Your task to perform on an android device: What's the news in Myanmar? Image 0: 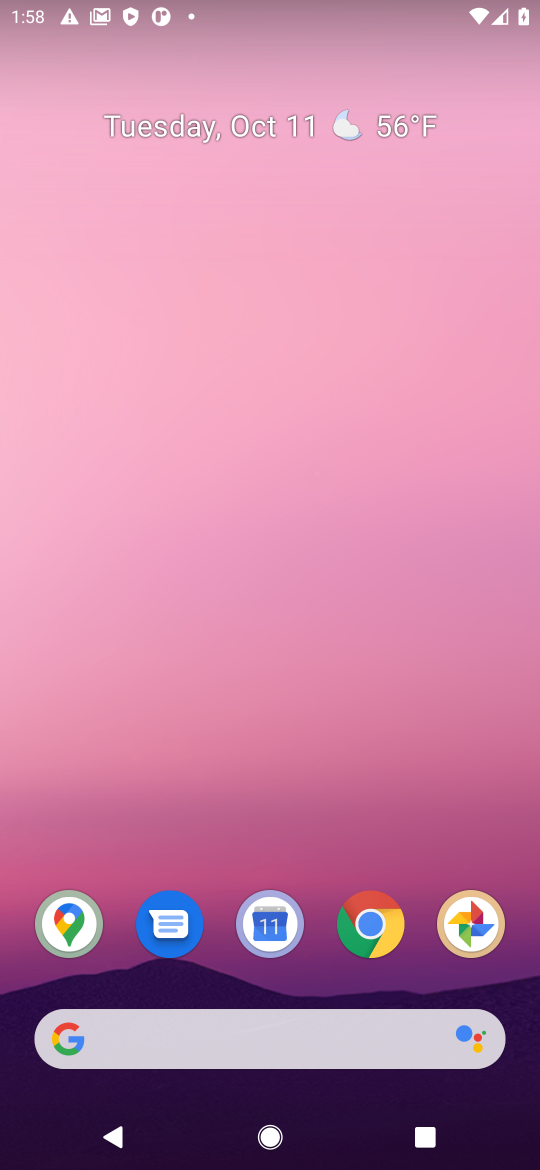
Step 0: drag from (295, 998) to (309, 7)
Your task to perform on an android device: What's the news in Myanmar? Image 1: 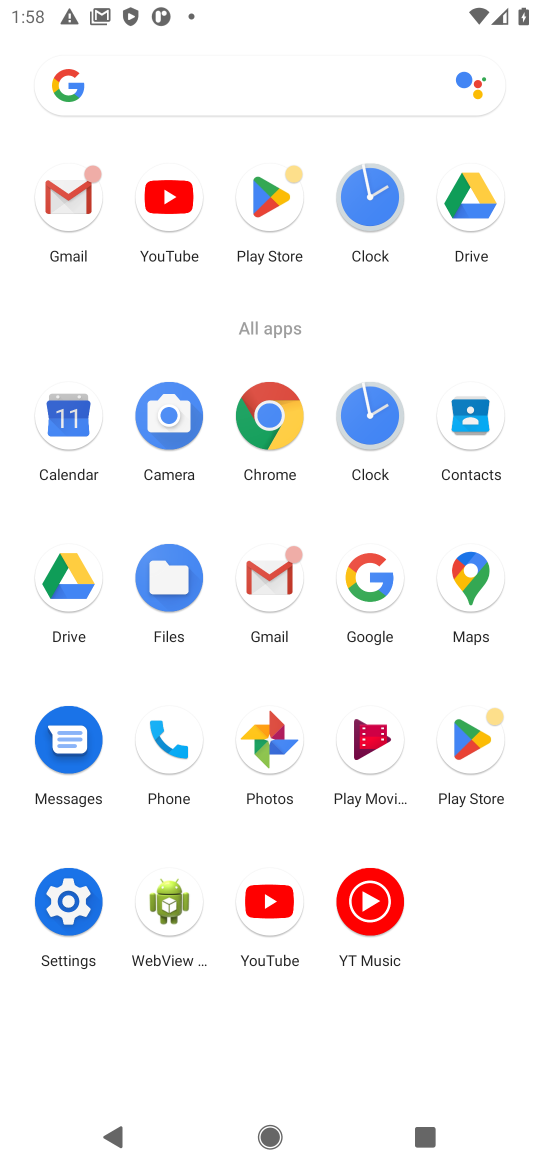
Step 1: click (376, 589)
Your task to perform on an android device: What's the news in Myanmar? Image 2: 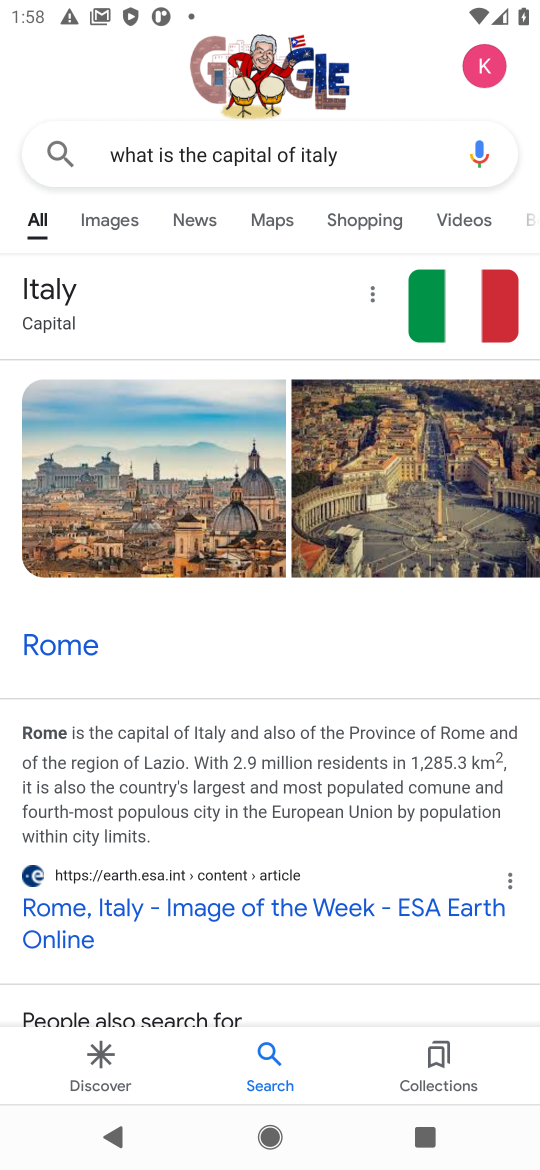
Step 2: click (411, 149)
Your task to perform on an android device: What's the news in Myanmar? Image 3: 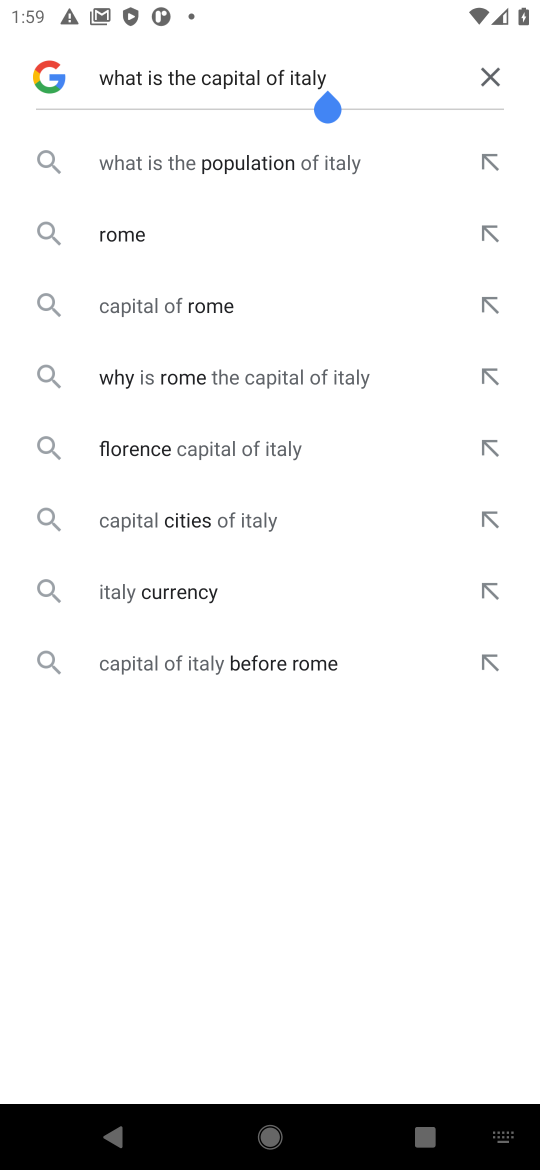
Step 3: click (488, 70)
Your task to perform on an android device: What's the news in Myanmar? Image 4: 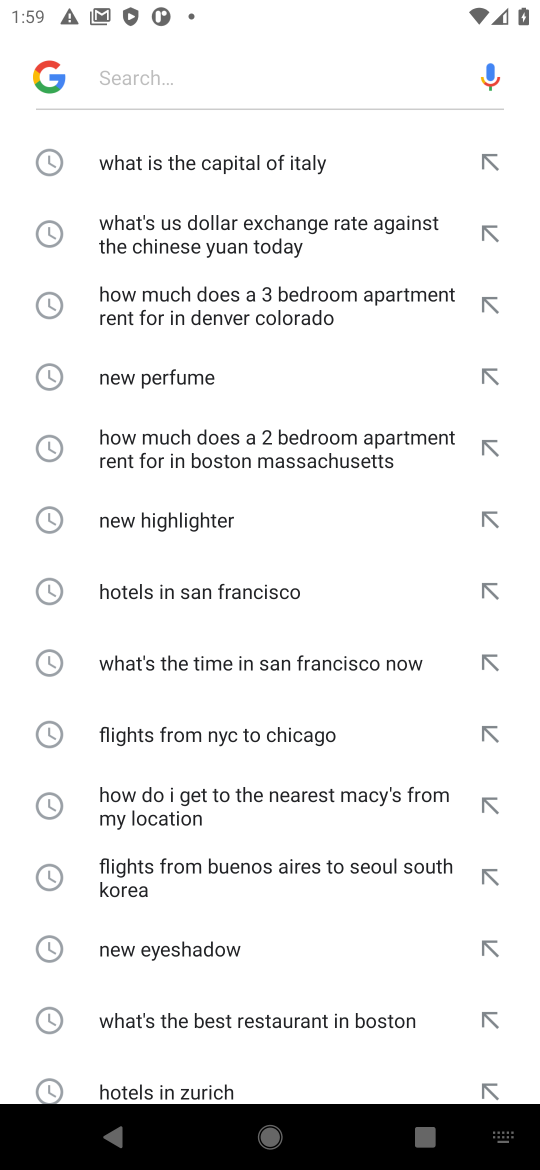
Step 4: type "What's the news in Myanmar?"
Your task to perform on an android device: What's the news in Myanmar? Image 5: 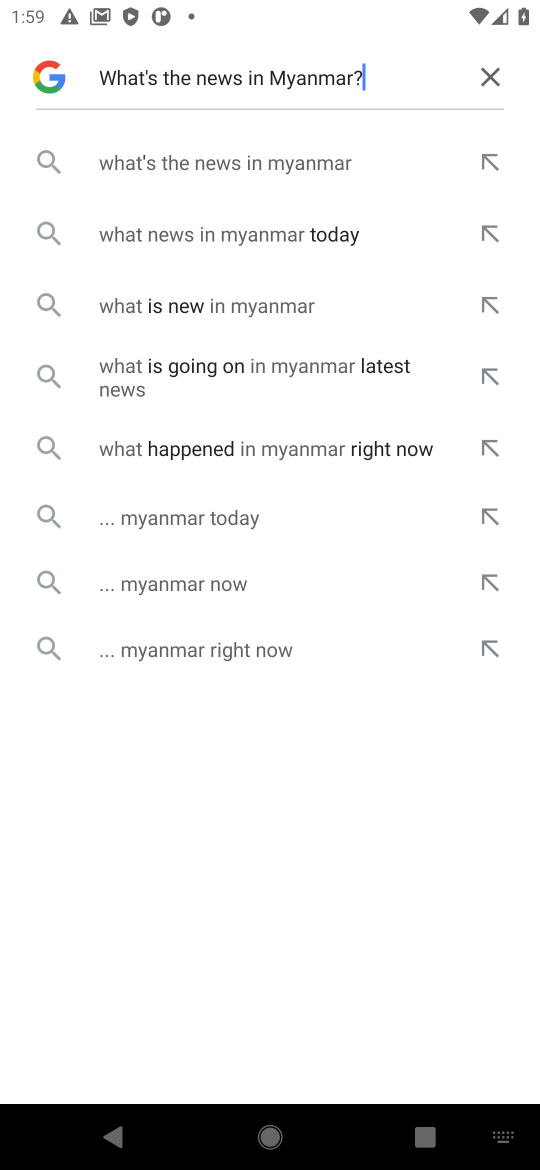
Step 5: click (214, 164)
Your task to perform on an android device: What's the news in Myanmar? Image 6: 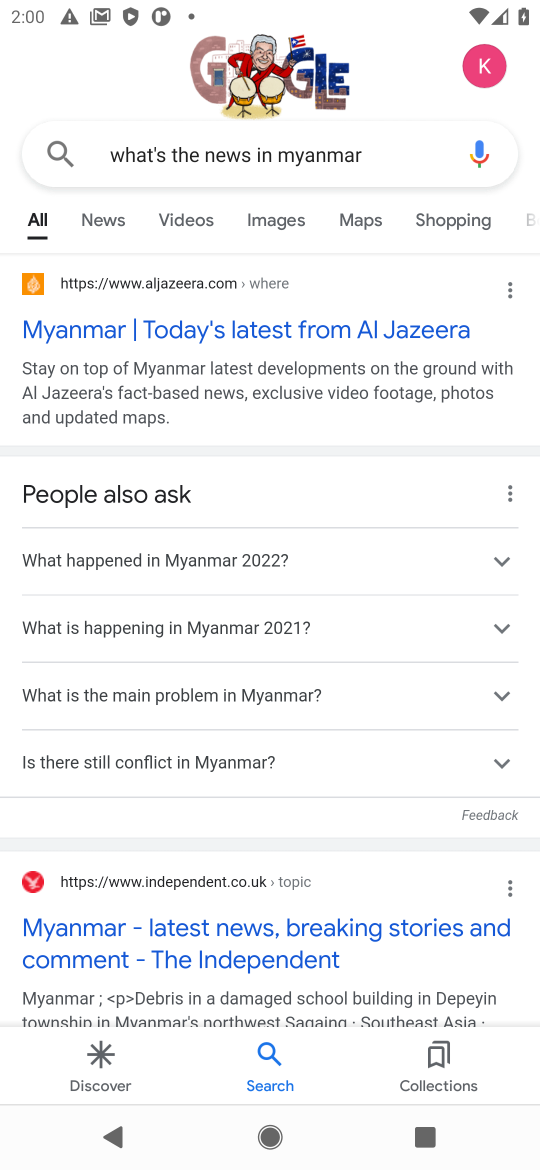
Step 6: click (286, 553)
Your task to perform on an android device: What's the news in Myanmar? Image 7: 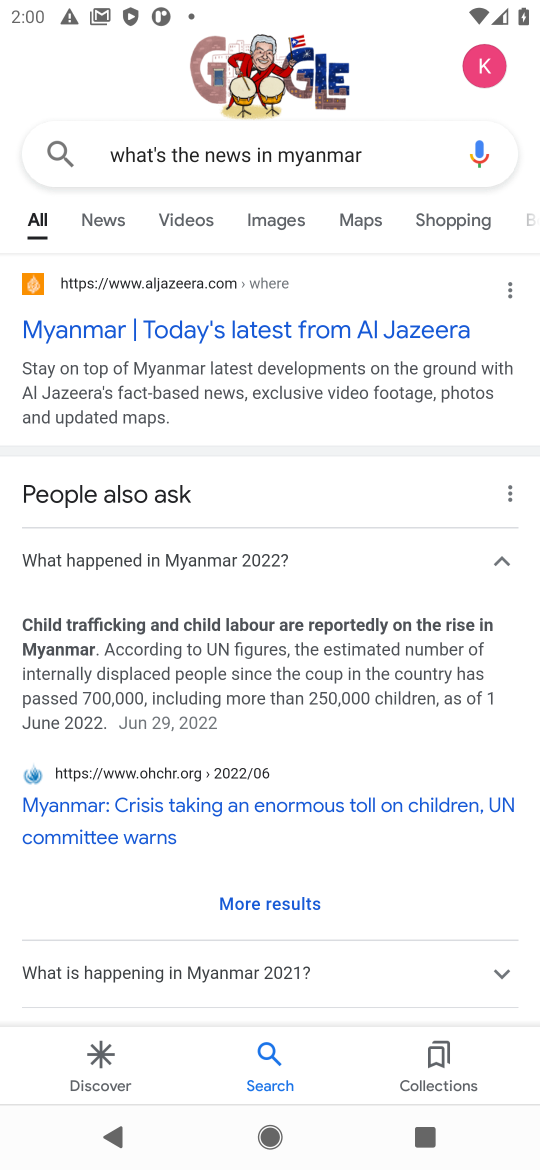
Step 7: task complete